Your task to perform on an android device: What is the news today? Image 0: 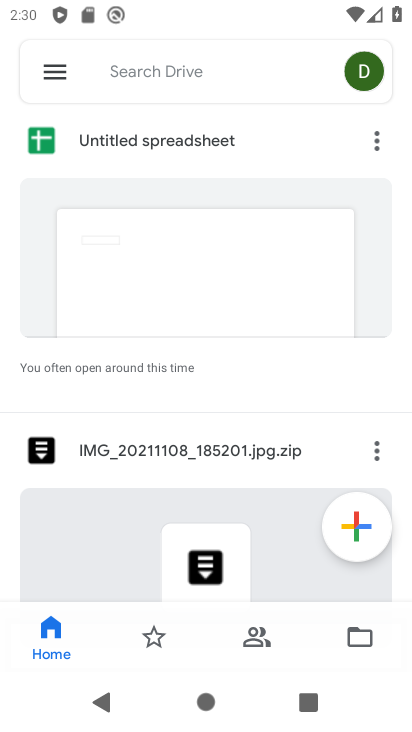
Step 0: press home button
Your task to perform on an android device: What is the news today? Image 1: 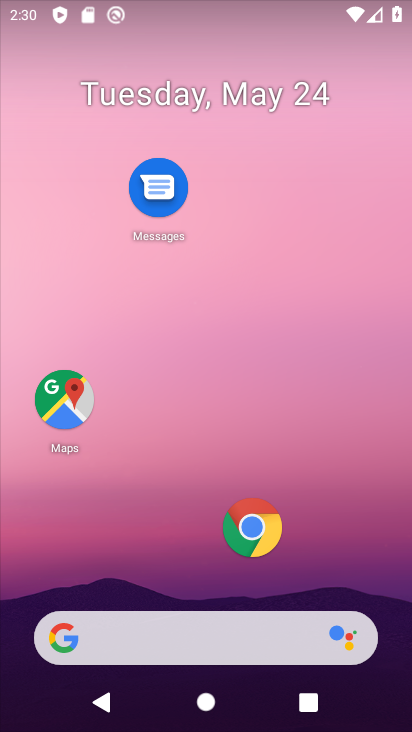
Step 1: click (247, 523)
Your task to perform on an android device: What is the news today? Image 2: 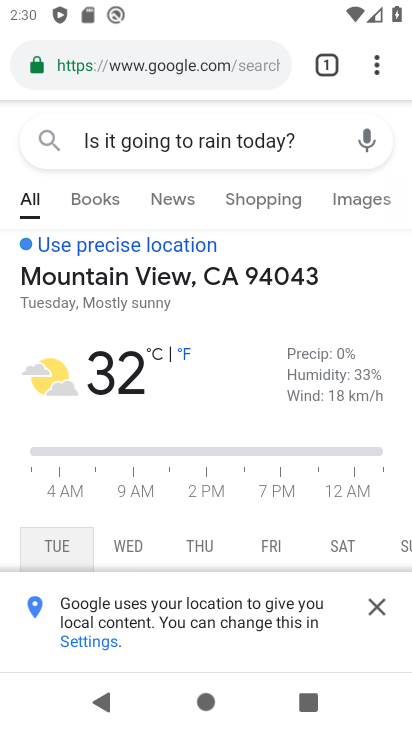
Step 2: click (161, 67)
Your task to perform on an android device: What is the news today? Image 3: 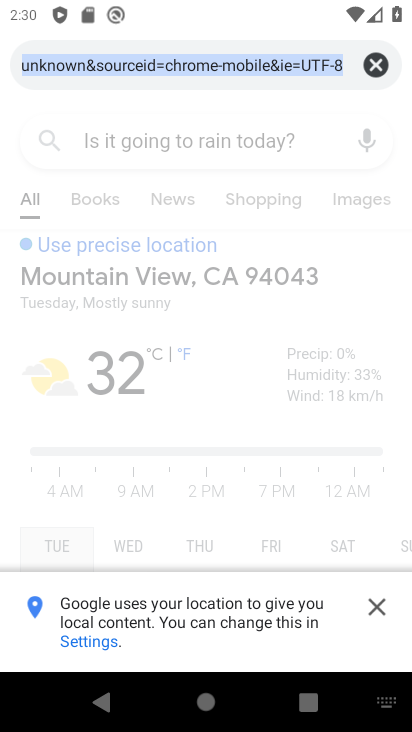
Step 3: type "What is the news today?"
Your task to perform on an android device: What is the news today? Image 4: 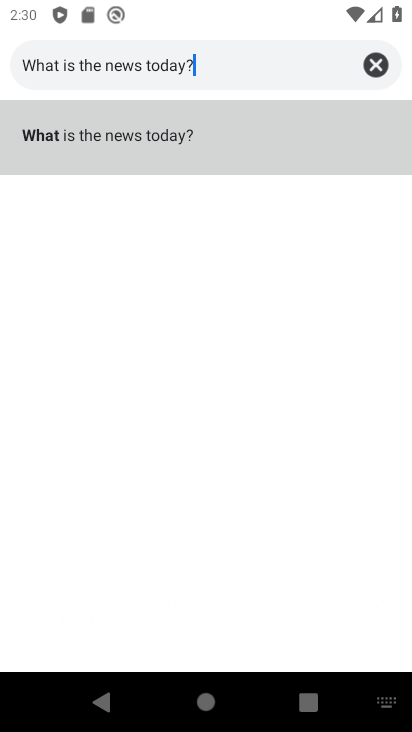
Step 4: click (250, 130)
Your task to perform on an android device: What is the news today? Image 5: 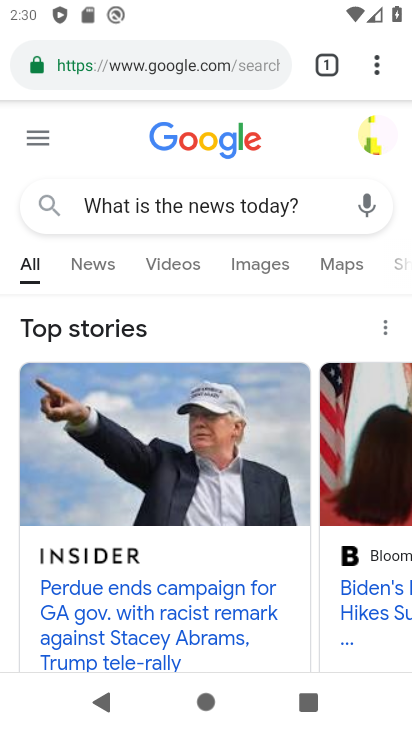
Step 5: task complete